Your task to perform on an android device: Go to Amazon Image 0: 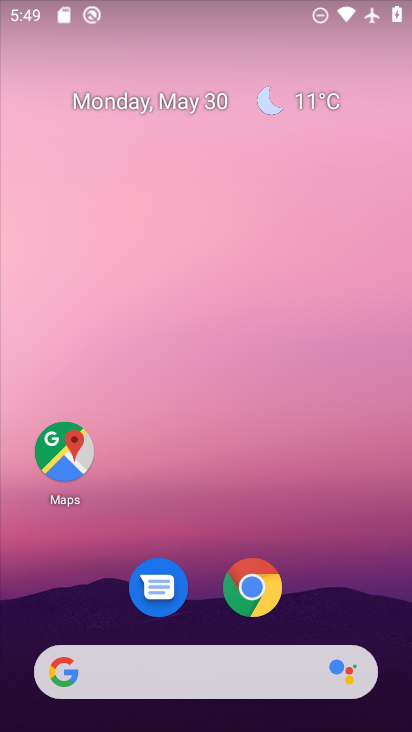
Step 0: drag from (345, 509) to (225, 8)
Your task to perform on an android device: Go to Amazon Image 1: 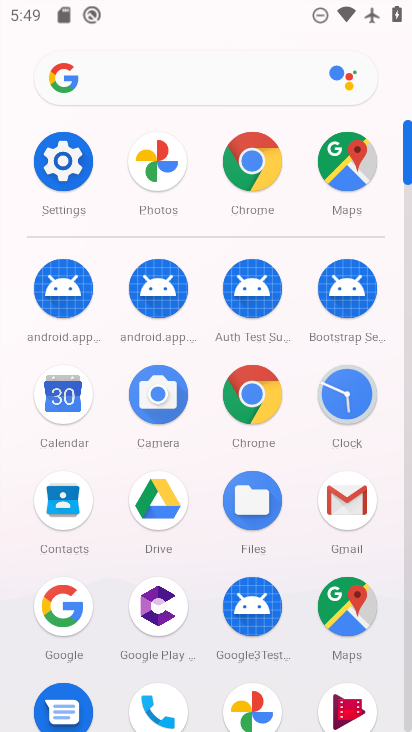
Step 1: drag from (26, 586) to (4, 272)
Your task to perform on an android device: Go to Amazon Image 2: 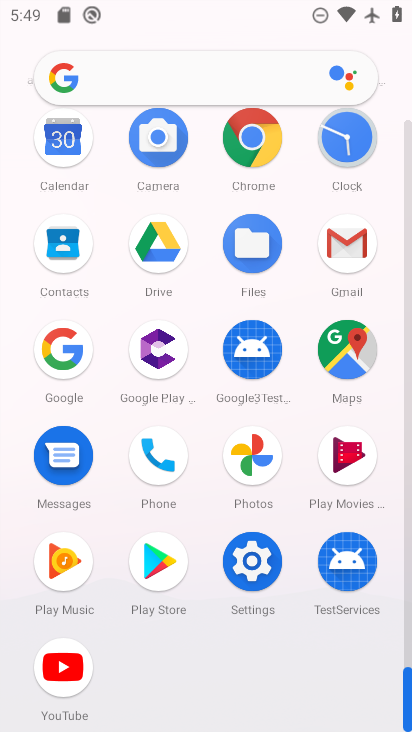
Step 2: click (254, 132)
Your task to perform on an android device: Go to Amazon Image 3: 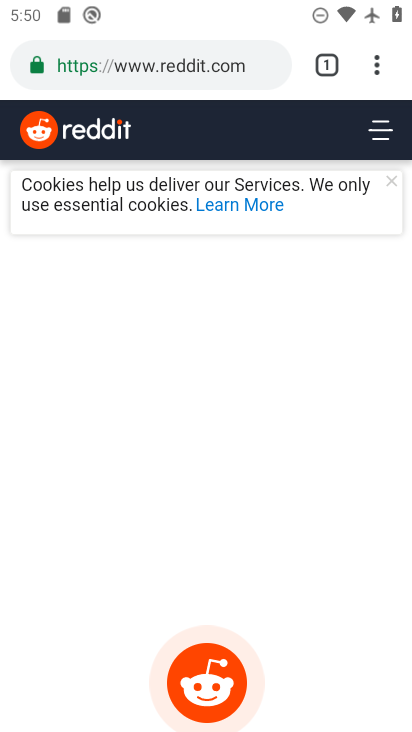
Step 3: click (192, 71)
Your task to perform on an android device: Go to Amazon Image 4: 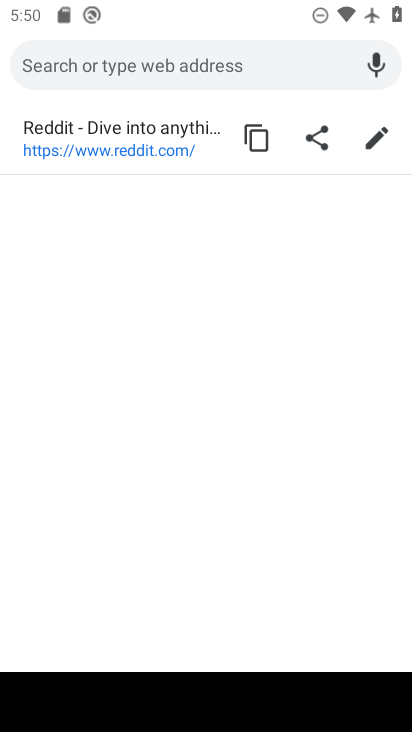
Step 4: type " Amazon"
Your task to perform on an android device: Go to Amazon Image 5: 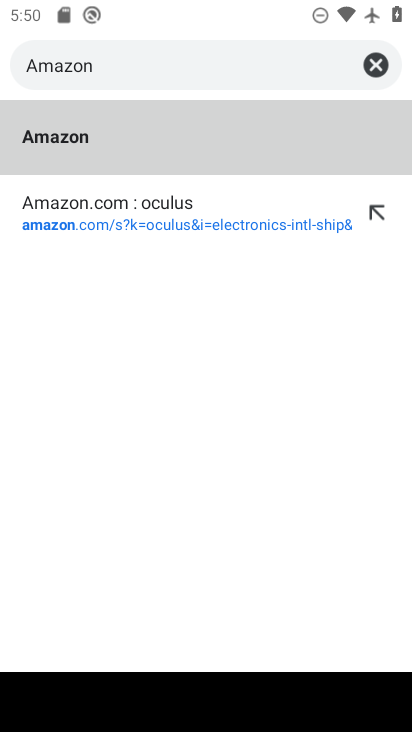
Step 5: click (115, 200)
Your task to perform on an android device: Go to Amazon Image 6: 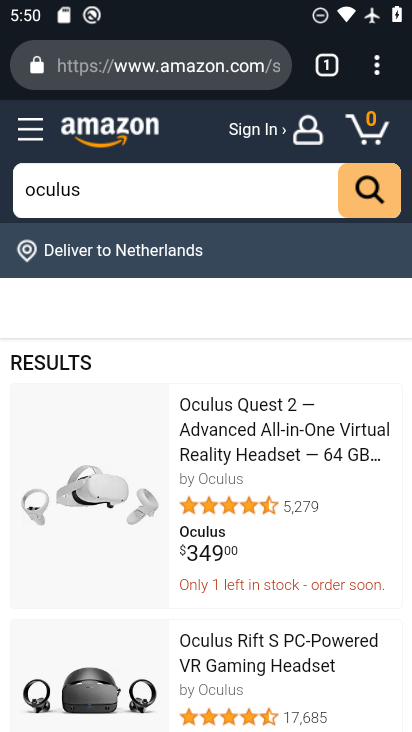
Step 6: task complete